Your task to perform on an android device: clear history in the chrome app Image 0: 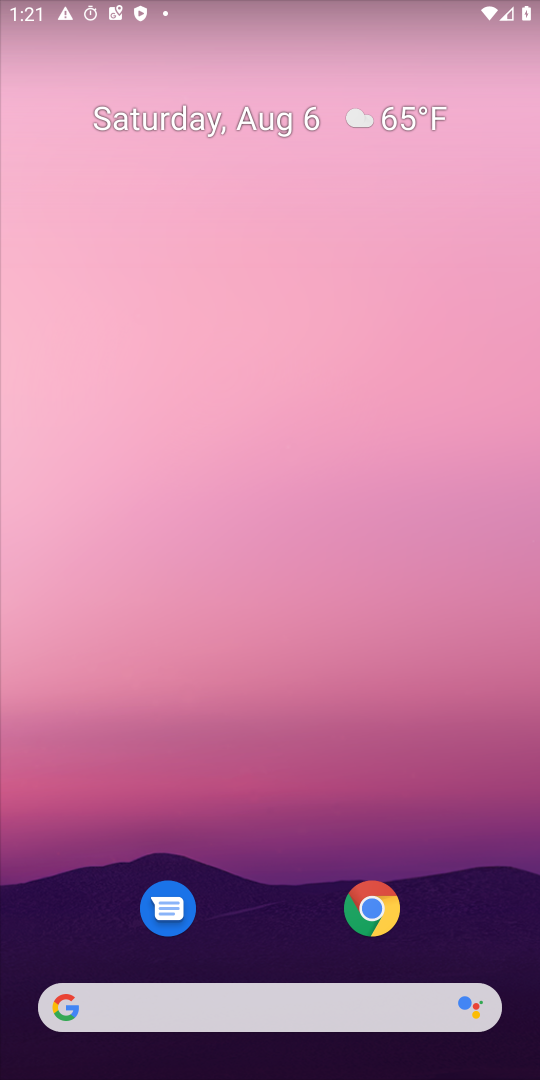
Step 0: click (367, 899)
Your task to perform on an android device: clear history in the chrome app Image 1: 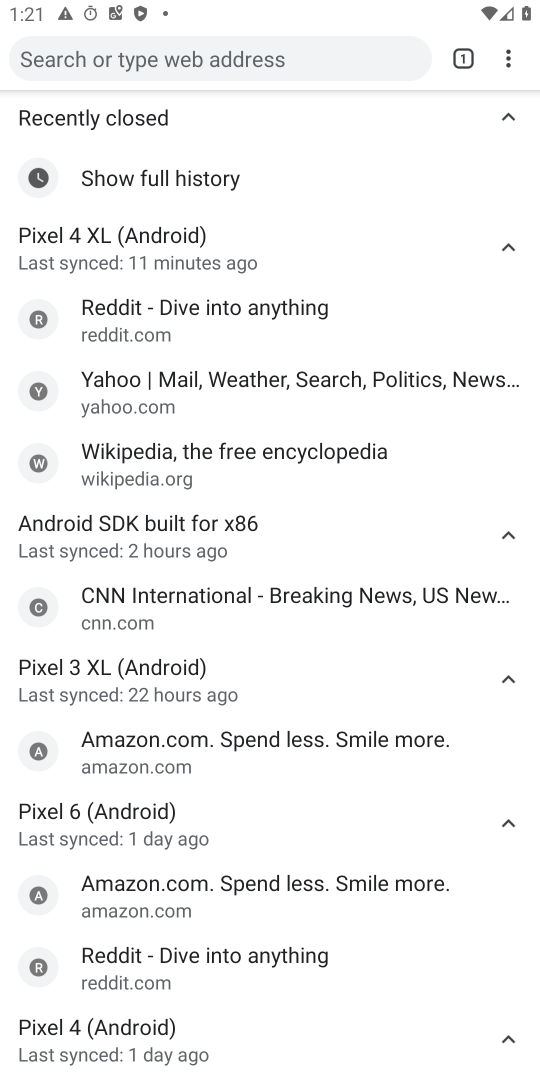
Step 1: click (511, 50)
Your task to perform on an android device: clear history in the chrome app Image 2: 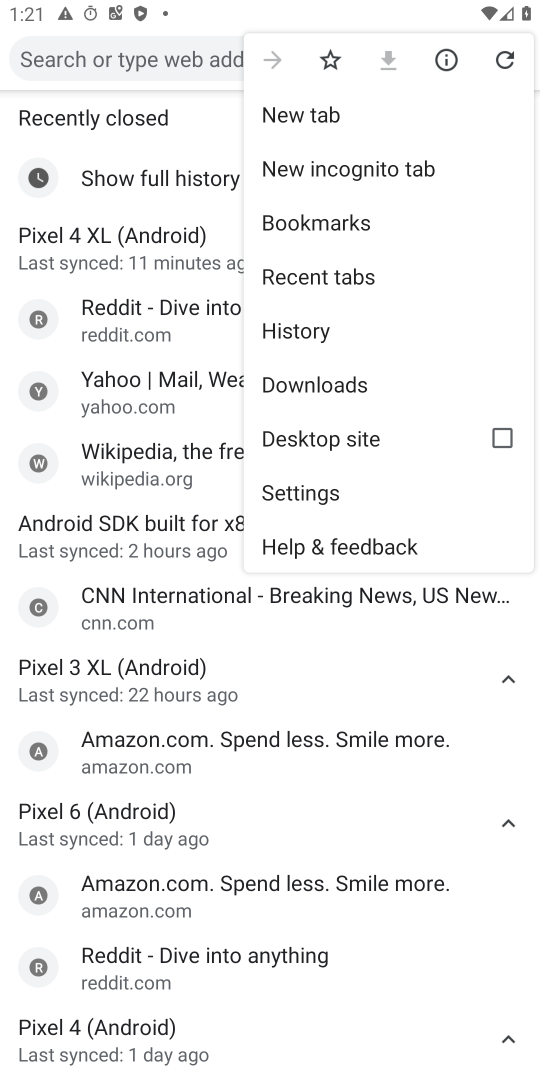
Step 2: click (327, 321)
Your task to perform on an android device: clear history in the chrome app Image 3: 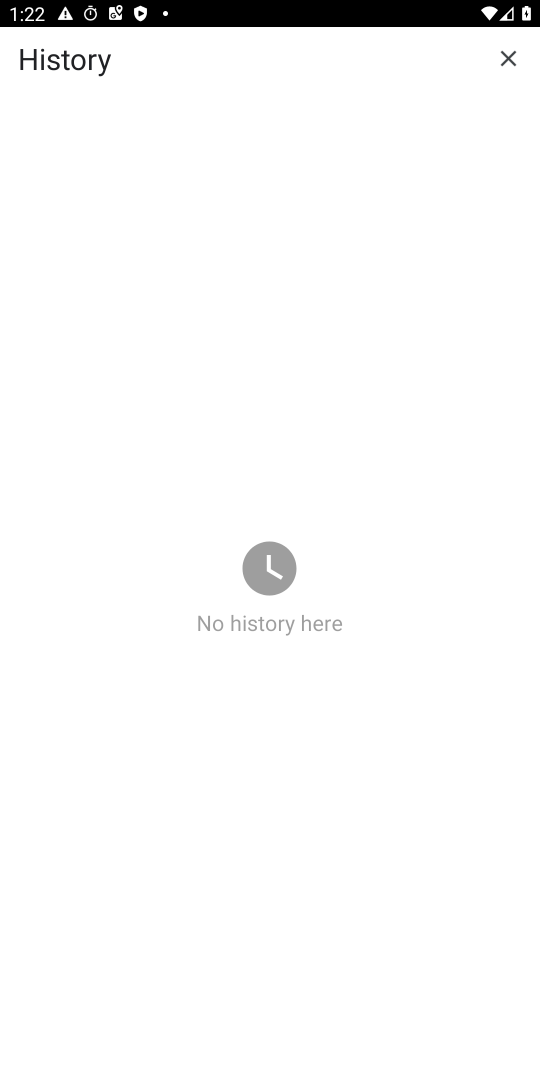
Step 3: task complete